Your task to perform on an android device: turn on improve location accuracy Image 0: 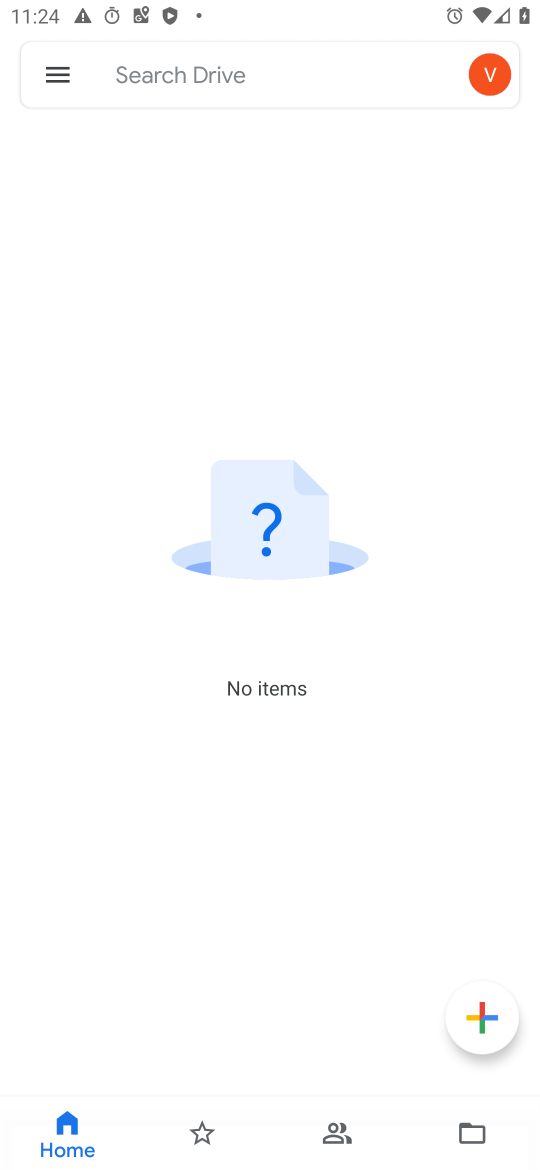
Step 0: press home button
Your task to perform on an android device: turn on improve location accuracy Image 1: 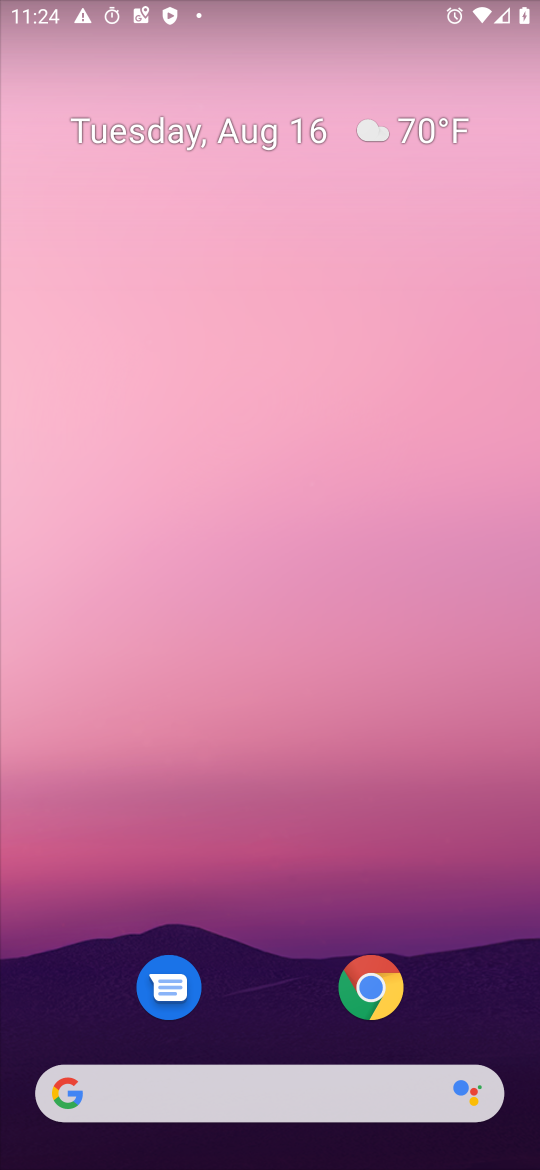
Step 1: drag from (31, 1140) to (267, 163)
Your task to perform on an android device: turn on improve location accuracy Image 2: 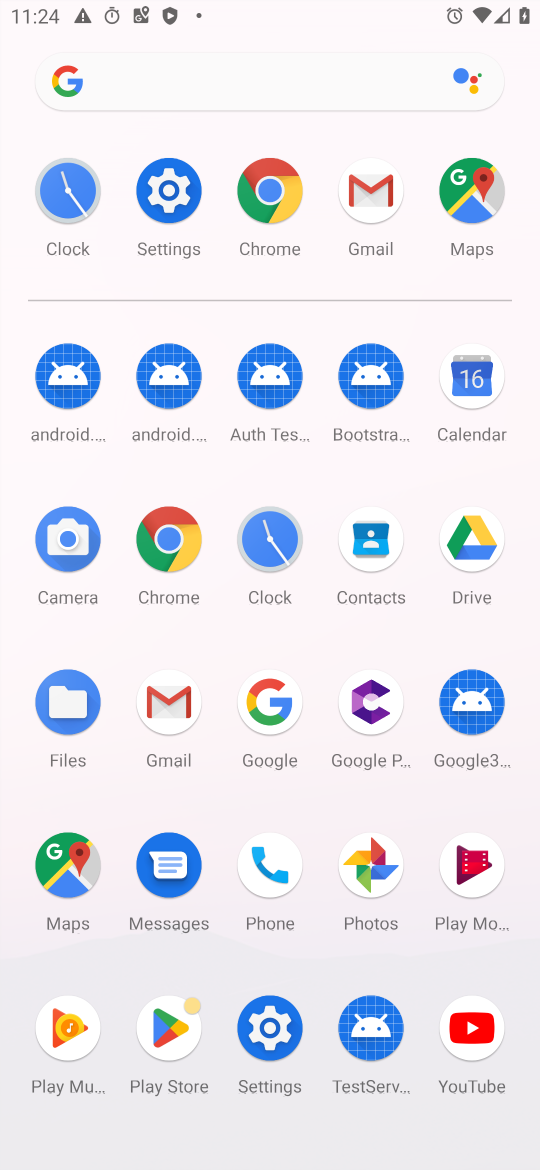
Step 2: click (291, 1027)
Your task to perform on an android device: turn on improve location accuracy Image 3: 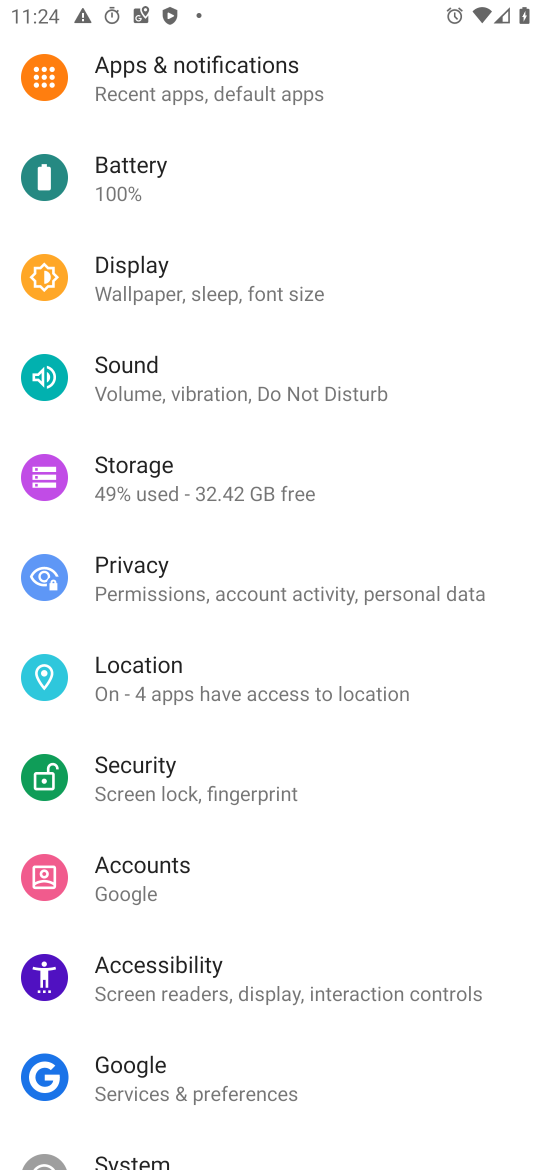
Step 3: click (176, 657)
Your task to perform on an android device: turn on improve location accuracy Image 4: 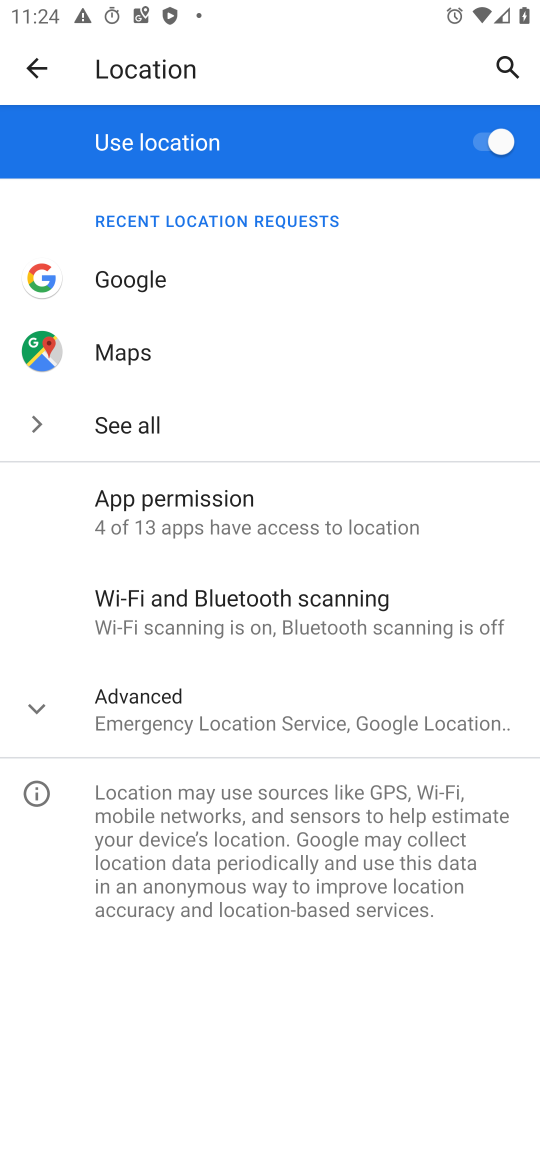
Step 4: click (162, 711)
Your task to perform on an android device: turn on improve location accuracy Image 5: 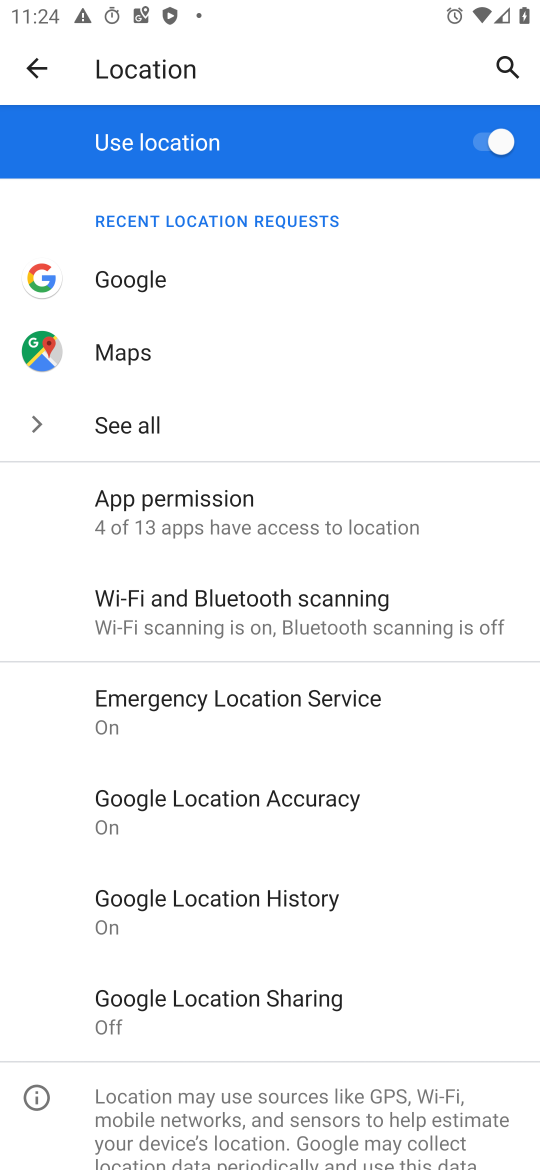
Step 5: click (198, 818)
Your task to perform on an android device: turn on improve location accuracy Image 6: 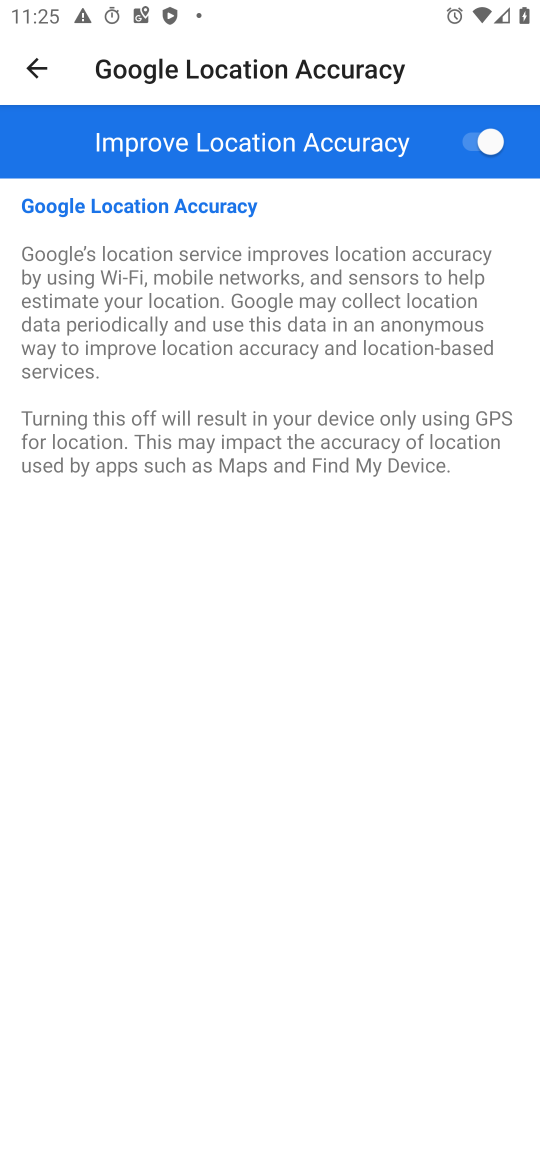
Step 6: task complete